Your task to perform on an android device: Add logitech g502 to the cart on costco.com Image 0: 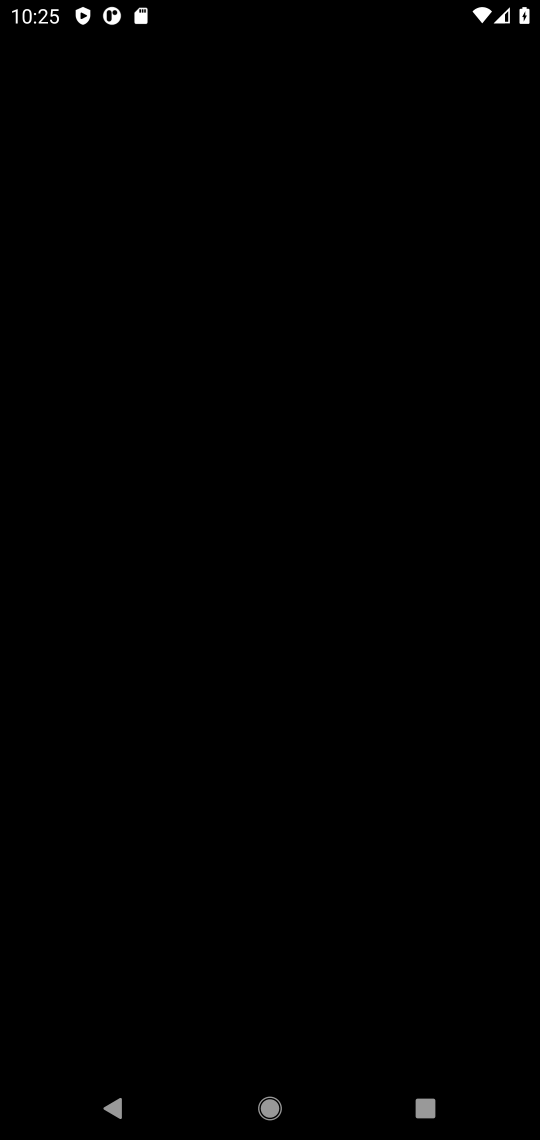
Step 0: press home button
Your task to perform on an android device: Add logitech g502 to the cart on costco.com Image 1: 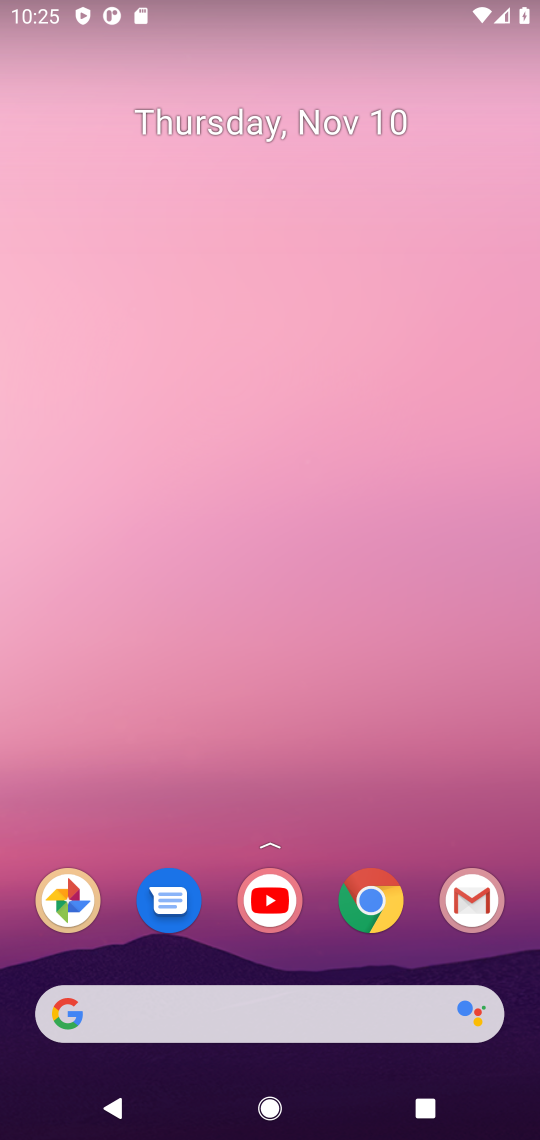
Step 1: click (367, 894)
Your task to perform on an android device: Add logitech g502 to the cart on costco.com Image 2: 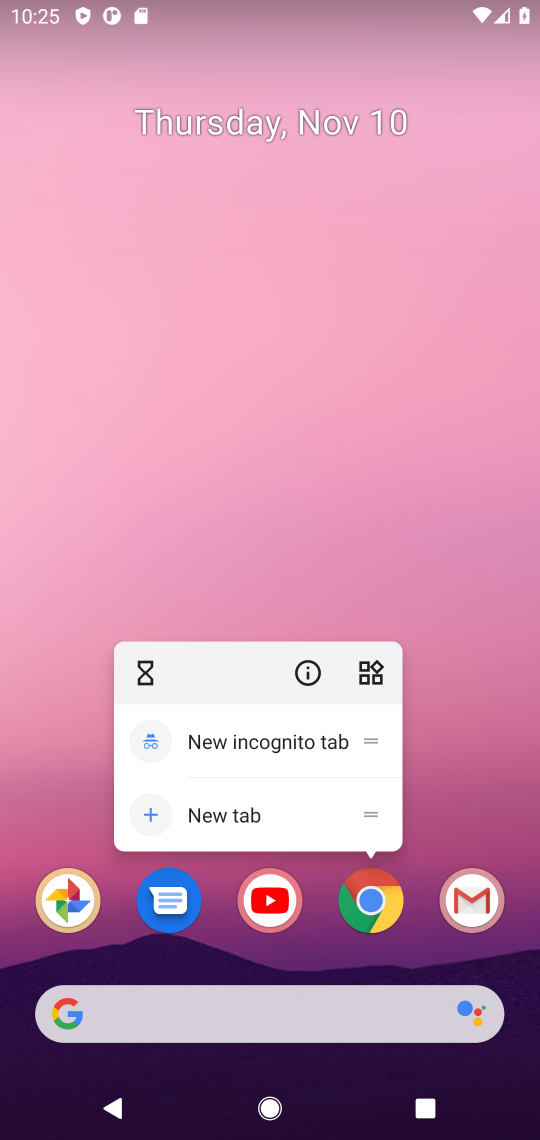
Step 2: click (367, 894)
Your task to perform on an android device: Add logitech g502 to the cart on costco.com Image 3: 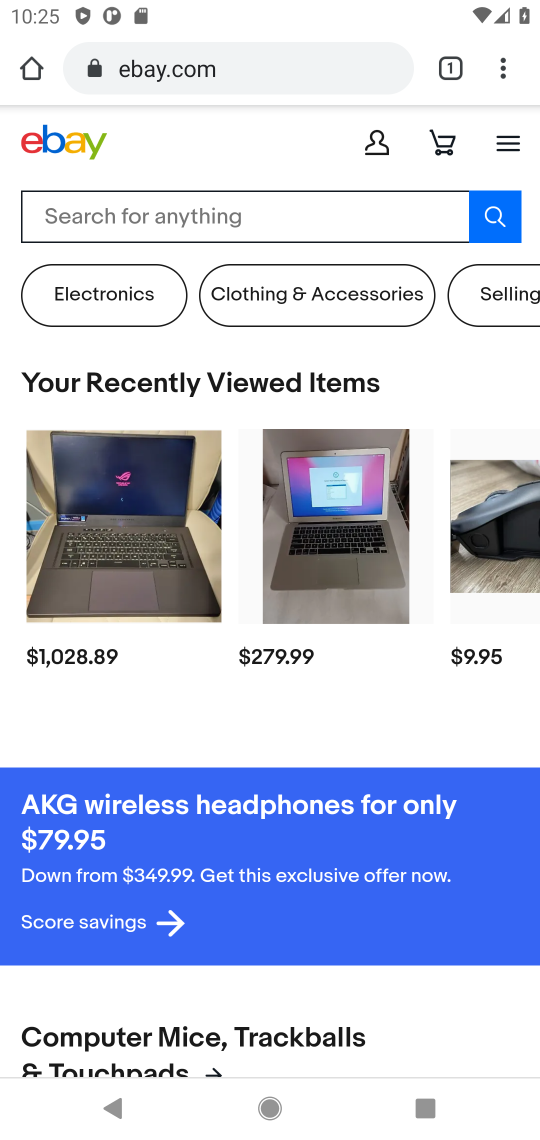
Step 3: click (250, 61)
Your task to perform on an android device: Add logitech g502 to the cart on costco.com Image 4: 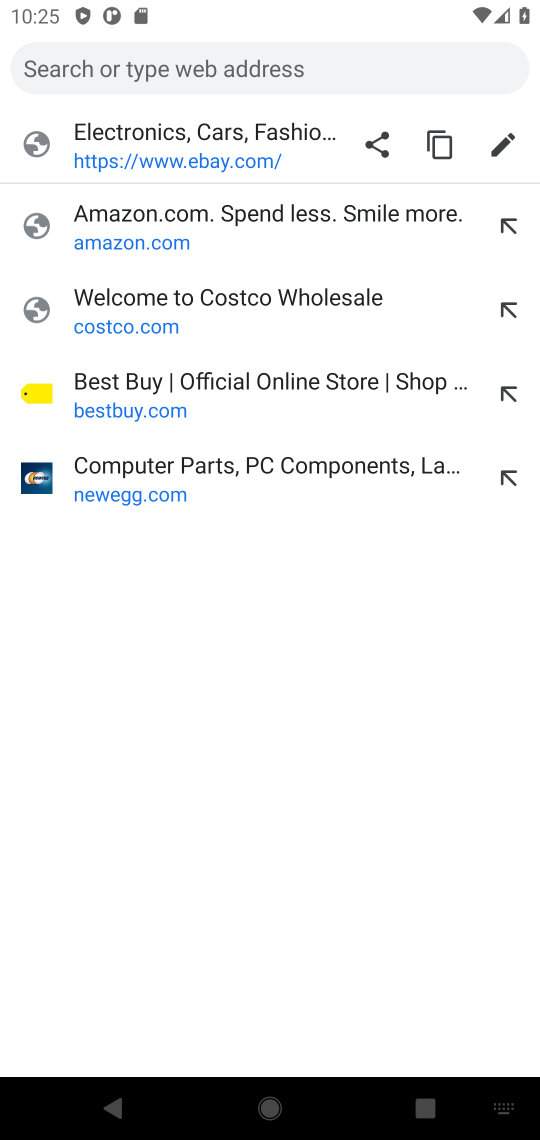
Step 4: click (121, 319)
Your task to perform on an android device: Add logitech g502 to the cart on costco.com Image 5: 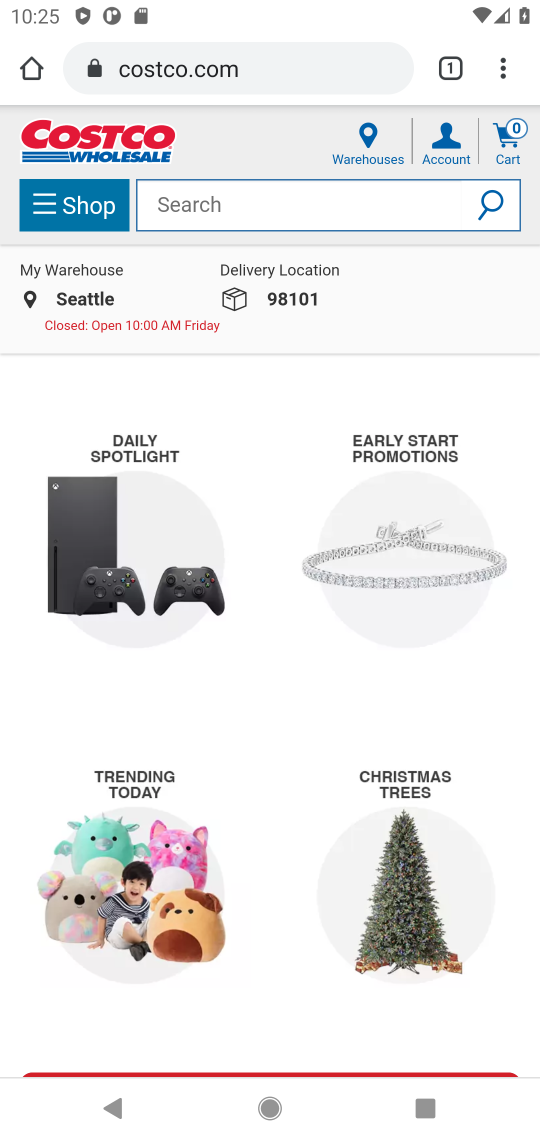
Step 5: click (232, 197)
Your task to perform on an android device: Add logitech g502 to the cart on costco.com Image 6: 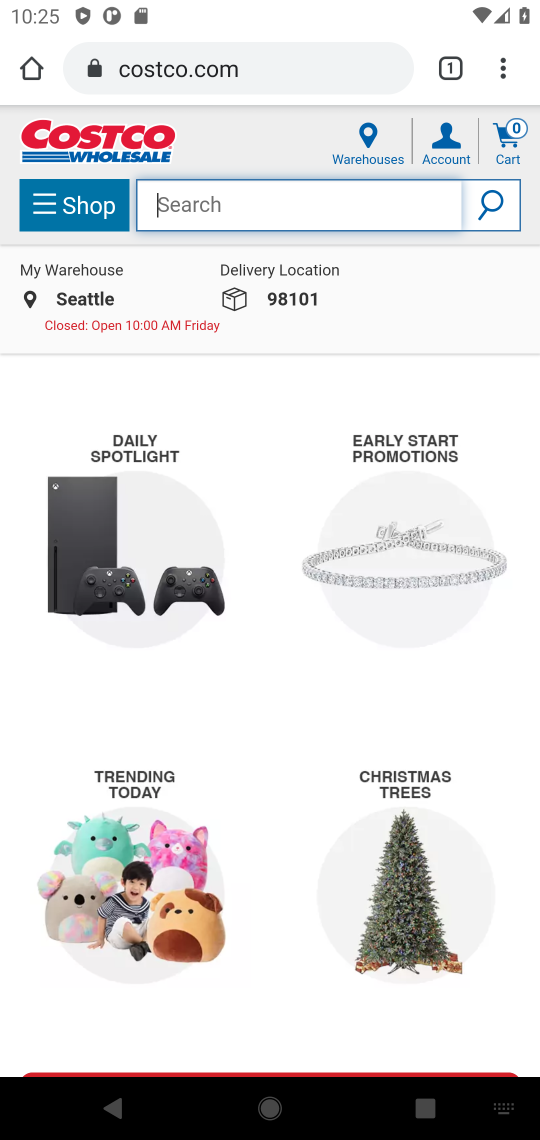
Step 6: type "logitech g502"
Your task to perform on an android device: Add logitech g502 to the cart on costco.com Image 7: 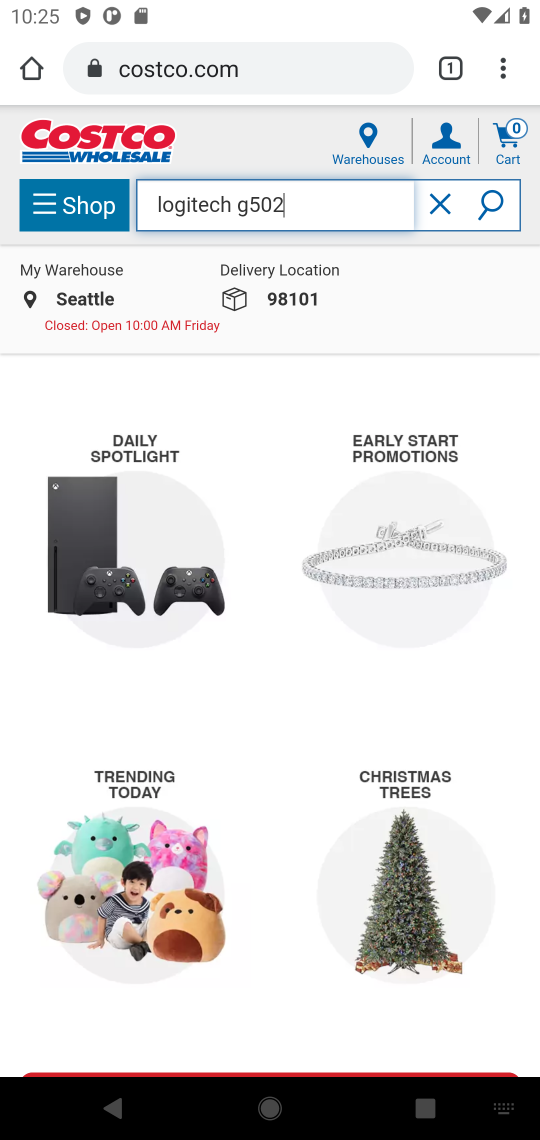
Step 7: press enter
Your task to perform on an android device: Add logitech g502 to the cart on costco.com Image 8: 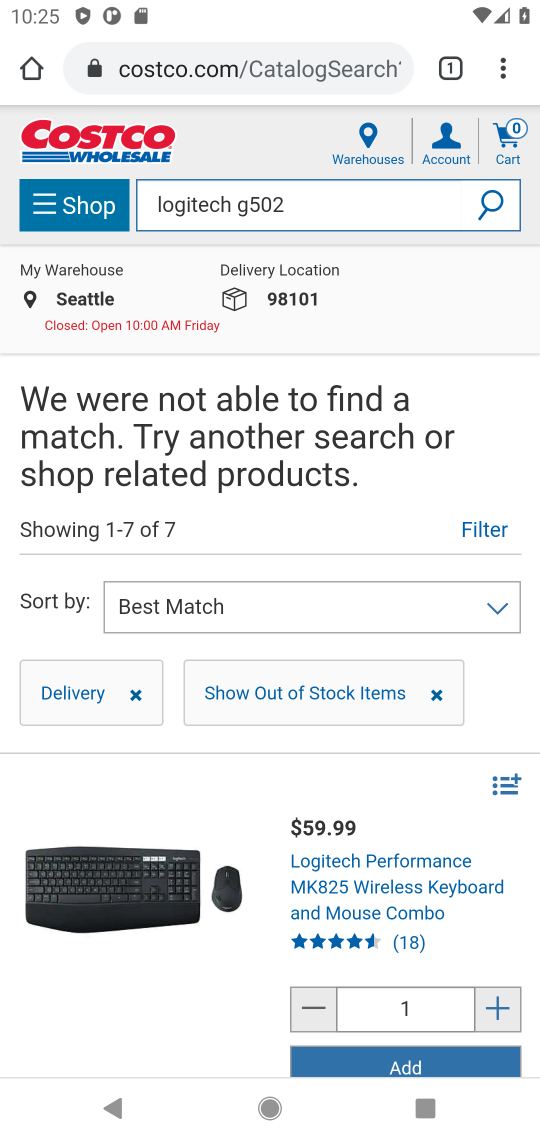
Step 8: task complete